Your task to perform on an android device: Open eBay Image 0: 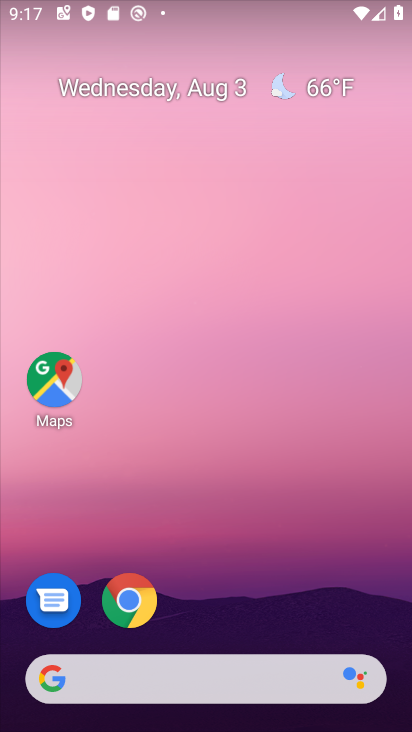
Step 0: drag from (206, 624) to (203, 116)
Your task to perform on an android device: Open eBay Image 1: 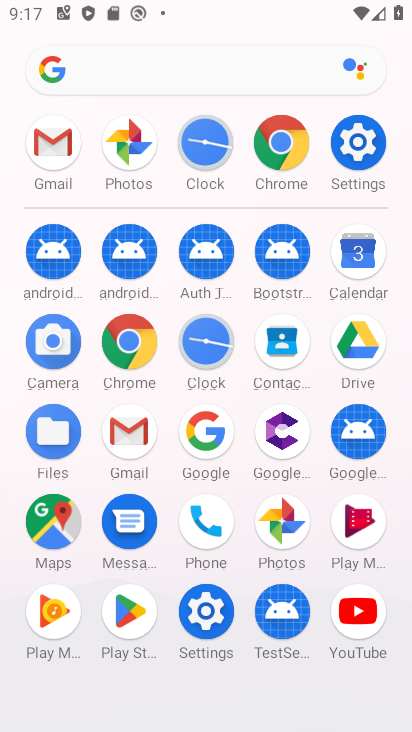
Step 1: click (131, 335)
Your task to perform on an android device: Open eBay Image 2: 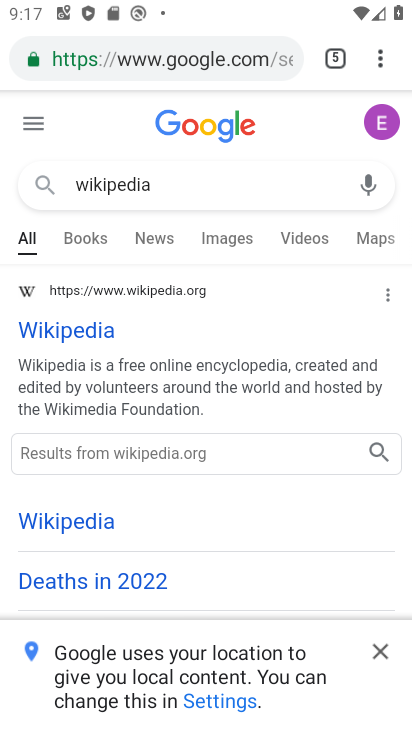
Step 2: click (183, 64)
Your task to perform on an android device: Open eBay Image 3: 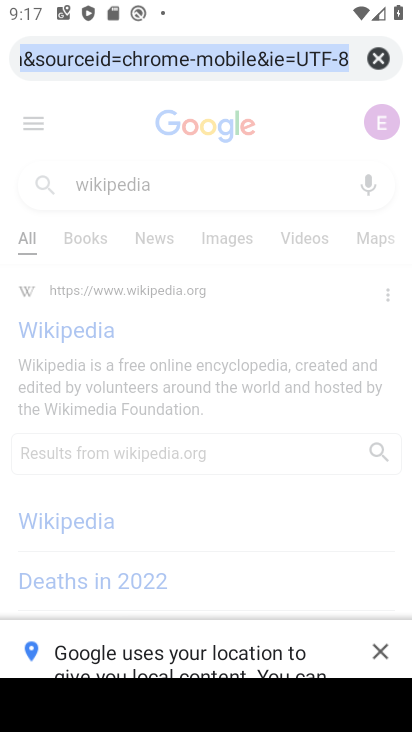
Step 3: type "eBay"
Your task to perform on an android device: Open eBay Image 4: 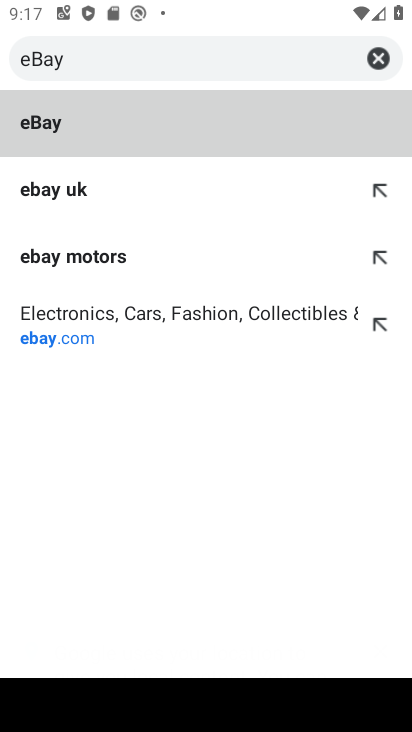
Step 4: click (130, 127)
Your task to perform on an android device: Open eBay Image 5: 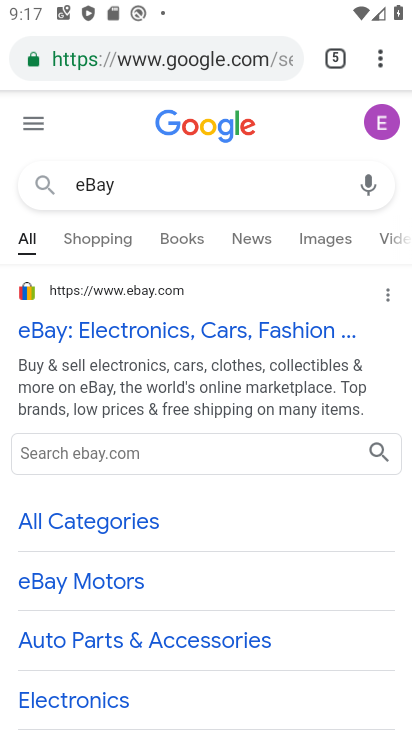
Step 5: click (109, 330)
Your task to perform on an android device: Open eBay Image 6: 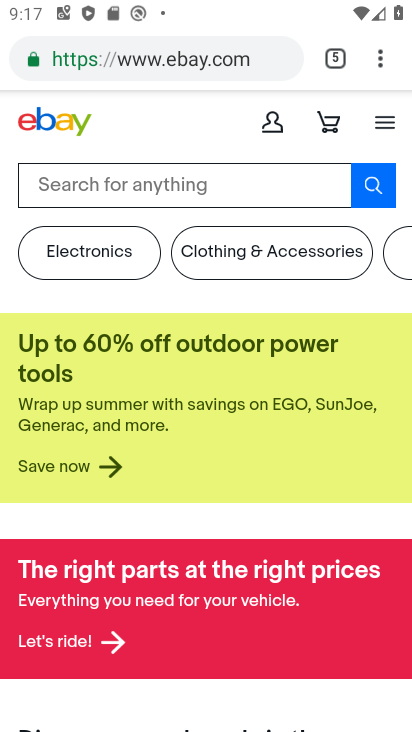
Step 6: task complete